Your task to perform on an android device: Open the phone app and click the voicemail tab. Image 0: 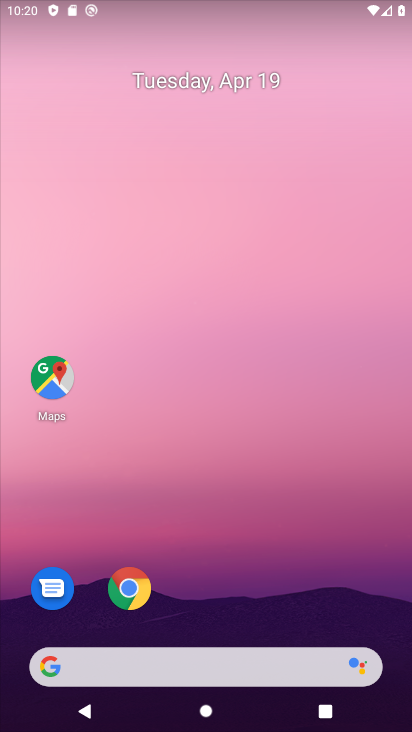
Step 0: drag from (194, 420) to (197, 49)
Your task to perform on an android device: Open the phone app and click the voicemail tab. Image 1: 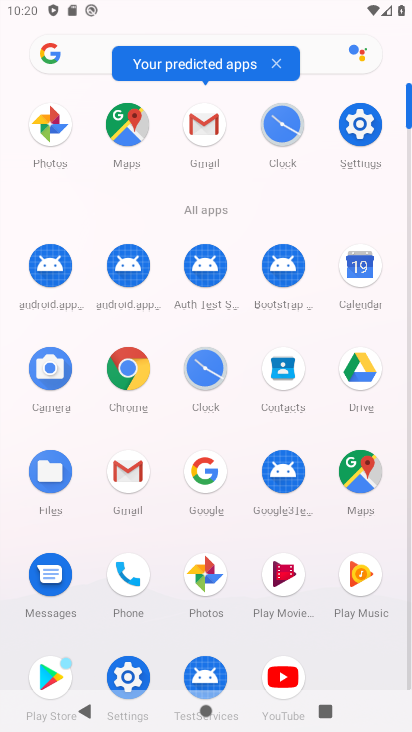
Step 1: click (126, 569)
Your task to perform on an android device: Open the phone app and click the voicemail tab. Image 2: 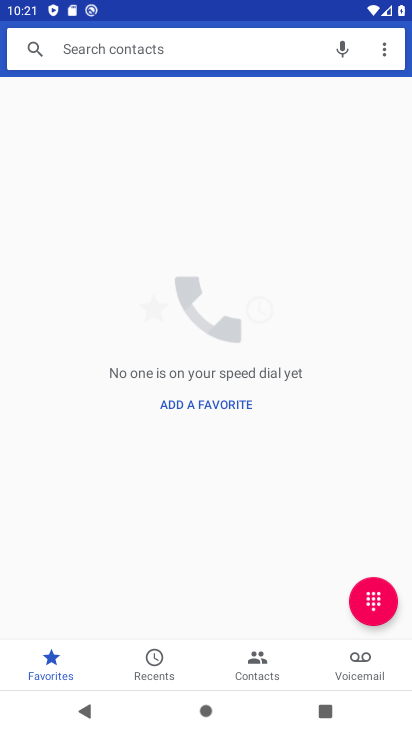
Step 2: click (358, 680)
Your task to perform on an android device: Open the phone app and click the voicemail tab. Image 3: 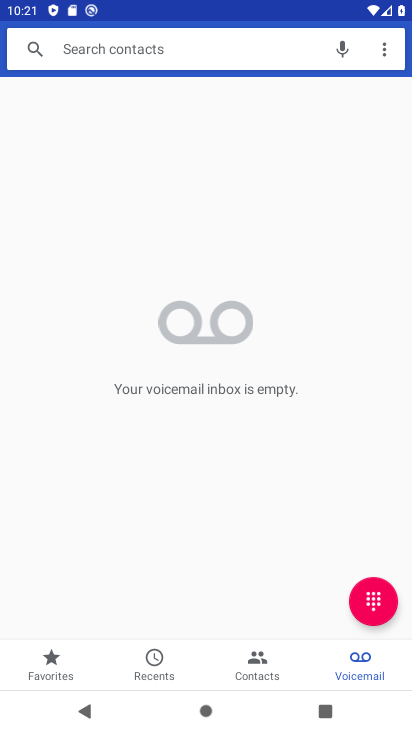
Step 3: task complete